Your task to perform on an android device: toggle notifications settings in the gmail app Image 0: 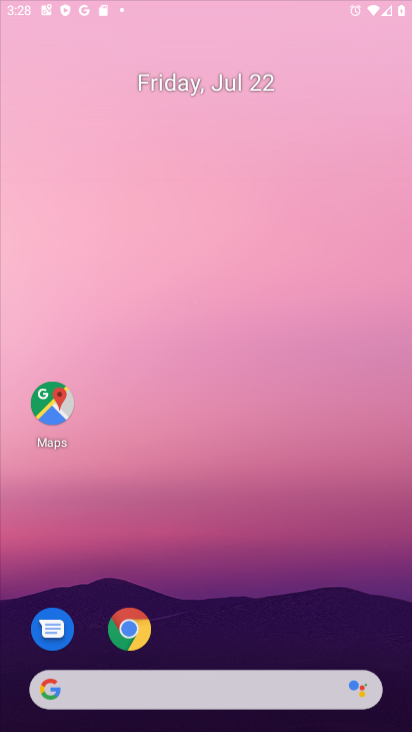
Step 0: drag from (257, 273) to (240, 241)
Your task to perform on an android device: toggle notifications settings in the gmail app Image 1: 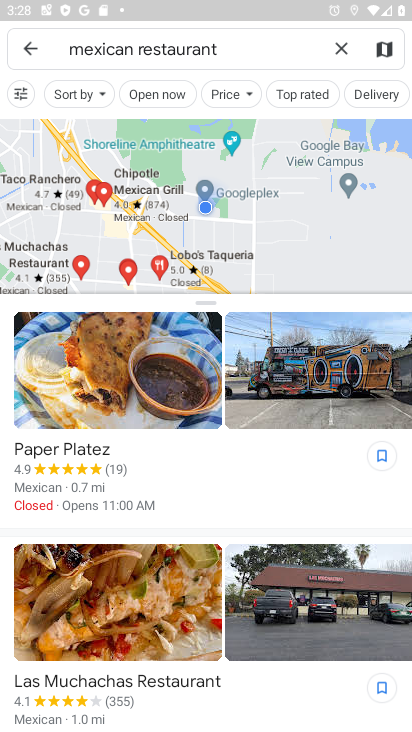
Step 1: press home button
Your task to perform on an android device: toggle notifications settings in the gmail app Image 2: 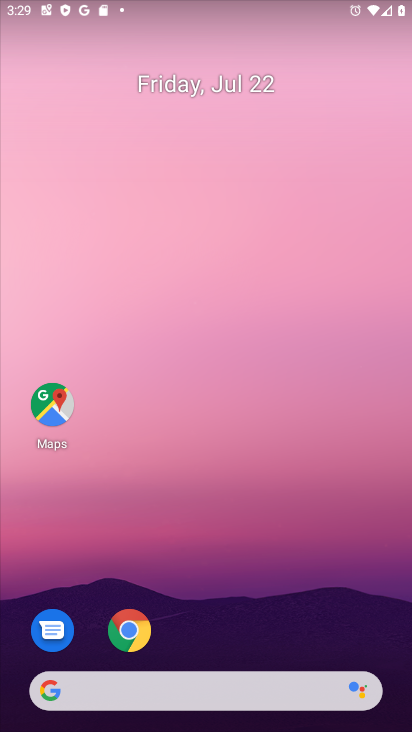
Step 2: drag from (198, 668) to (189, 88)
Your task to perform on an android device: toggle notifications settings in the gmail app Image 3: 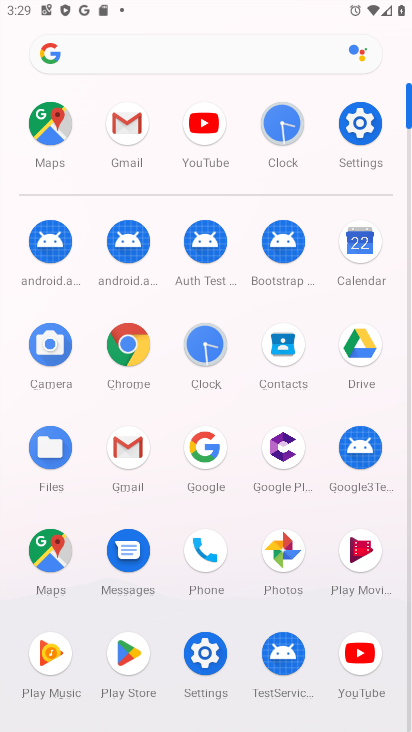
Step 3: click (144, 446)
Your task to perform on an android device: toggle notifications settings in the gmail app Image 4: 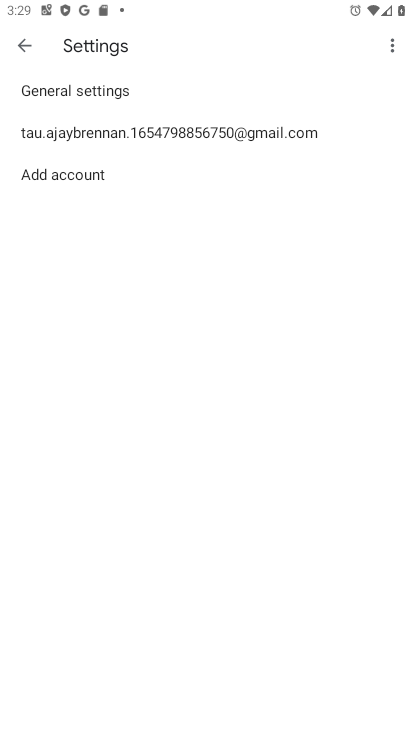
Step 4: click (107, 142)
Your task to perform on an android device: toggle notifications settings in the gmail app Image 5: 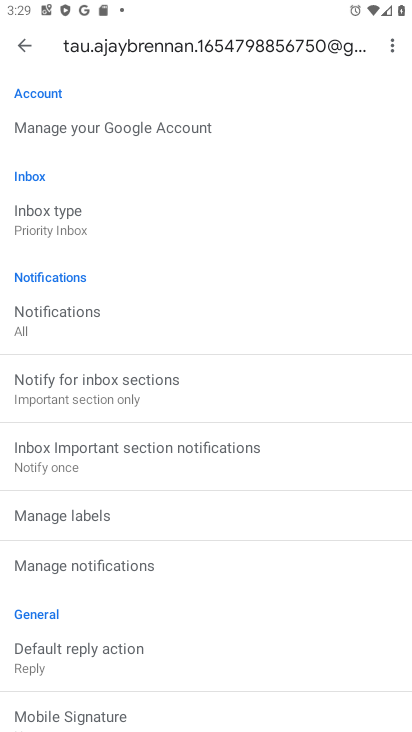
Step 5: click (129, 565)
Your task to perform on an android device: toggle notifications settings in the gmail app Image 6: 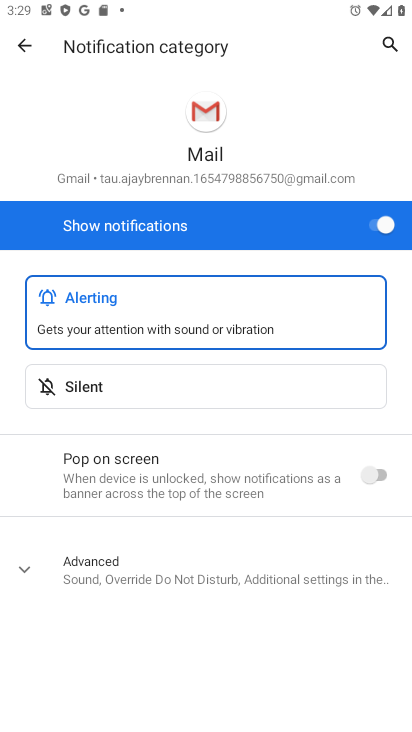
Step 6: click (377, 220)
Your task to perform on an android device: toggle notifications settings in the gmail app Image 7: 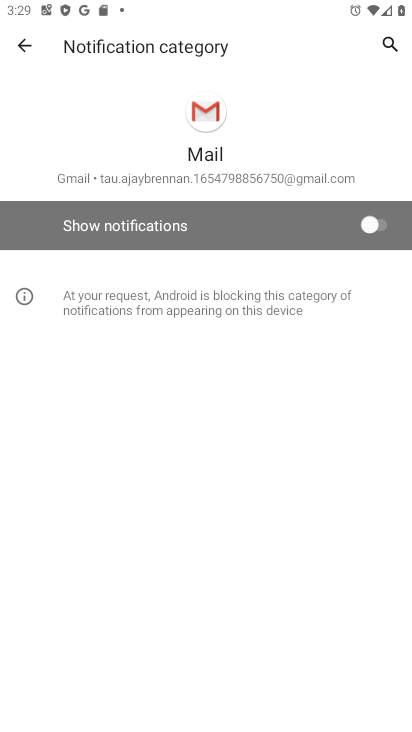
Step 7: task complete